Your task to perform on an android device: Search for sushi restaurants on Maps Image 0: 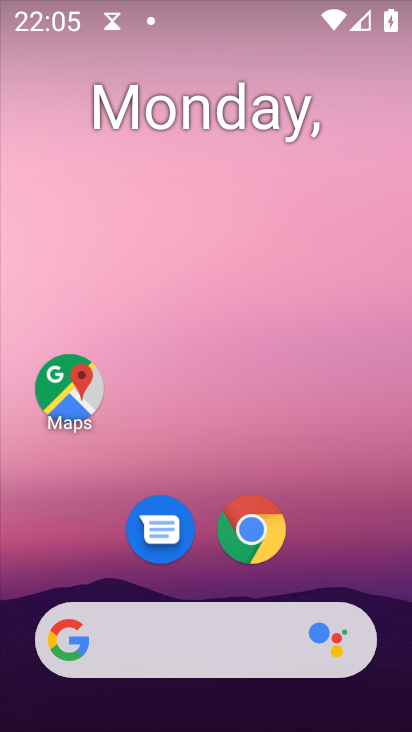
Step 0: click (72, 389)
Your task to perform on an android device: Search for sushi restaurants on Maps Image 1: 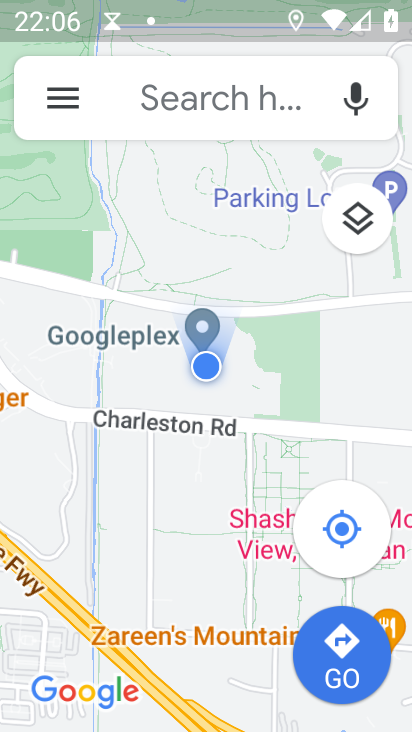
Step 1: click (163, 112)
Your task to perform on an android device: Search for sushi restaurants on Maps Image 2: 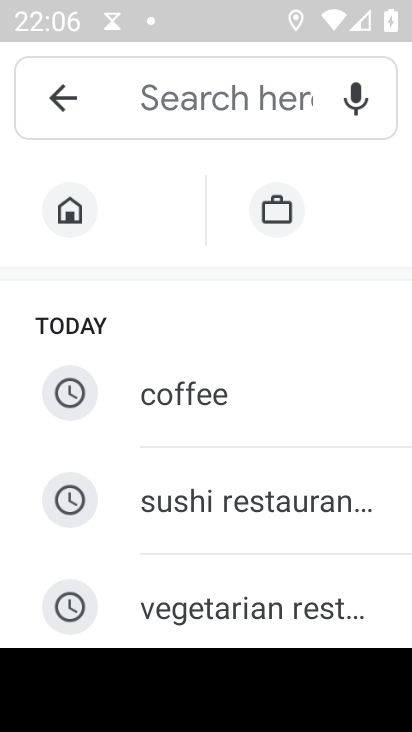
Step 2: type "sushi restaurants"
Your task to perform on an android device: Search for sushi restaurants on Maps Image 3: 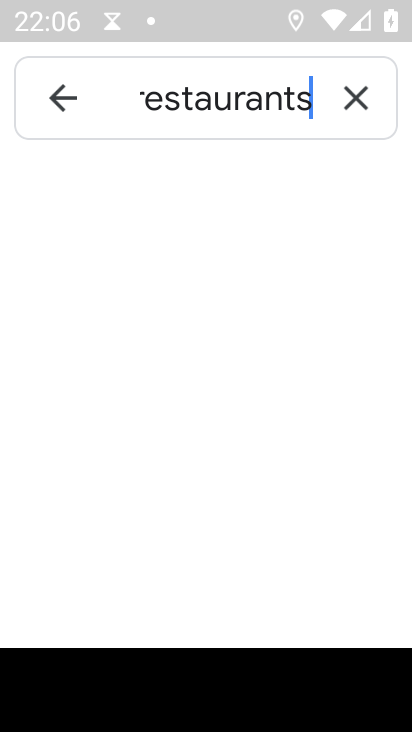
Step 3: type ""
Your task to perform on an android device: Search for sushi restaurants on Maps Image 4: 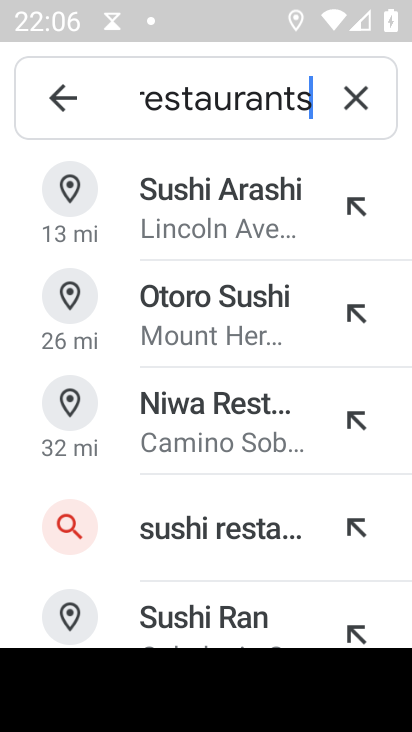
Step 4: click (241, 529)
Your task to perform on an android device: Search for sushi restaurants on Maps Image 5: 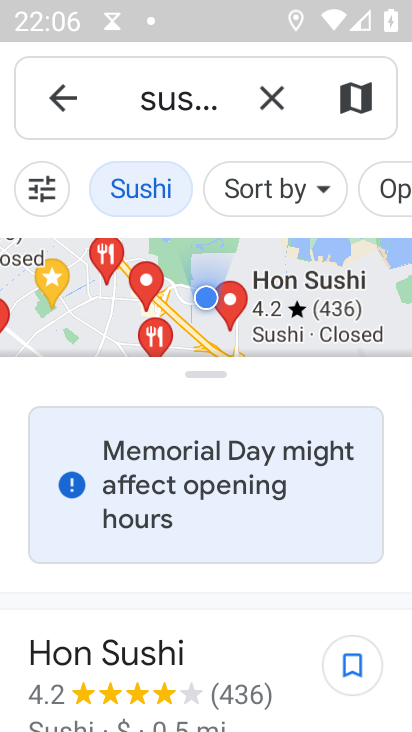
Step 5: task complete